Your task to perform on an android device: move a message to another label in the gmail app Image 0: 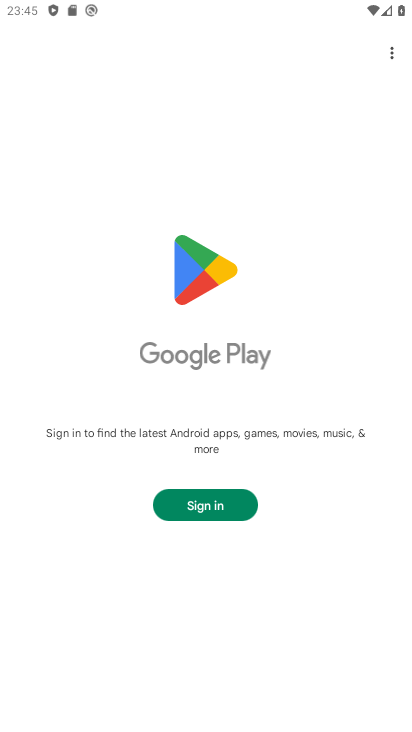
Step 0: press home button
Your task to perform on an android device: move a message to another label in the gmail app Image 1: 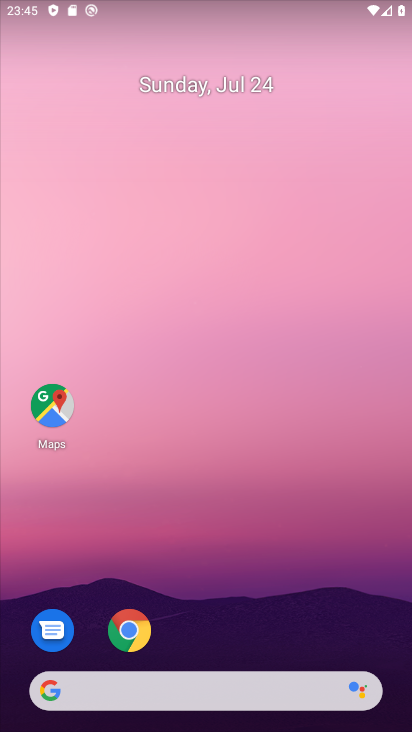
Step 1: drag from (296, 572) to (313, 138)
Your task to perform on an android device: move a message to another label in the gmail app Image 2: 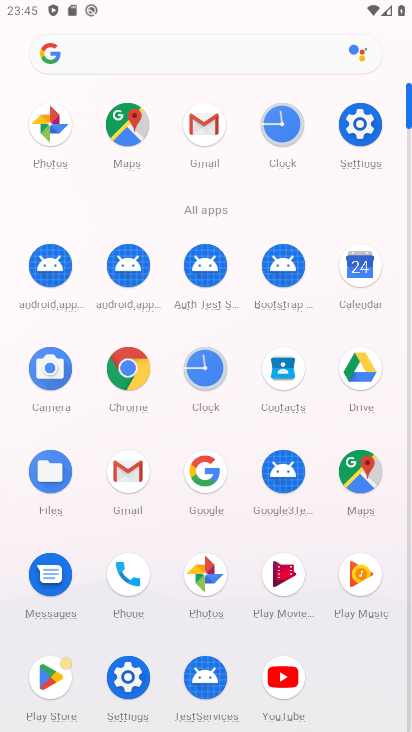
Step 2: click (205, 152)
Your task to perform on an android device: move a message to another label in the gmail app Image 3: 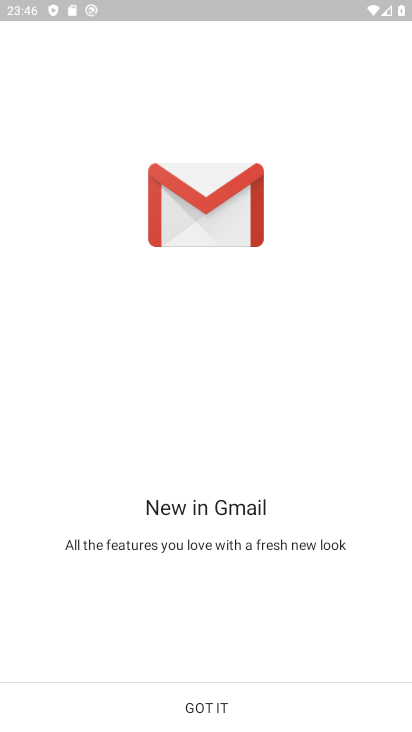
Step 3: click (219, 699)
Your task to perform on an android device: move a message to another label in the gmail app Image 4: 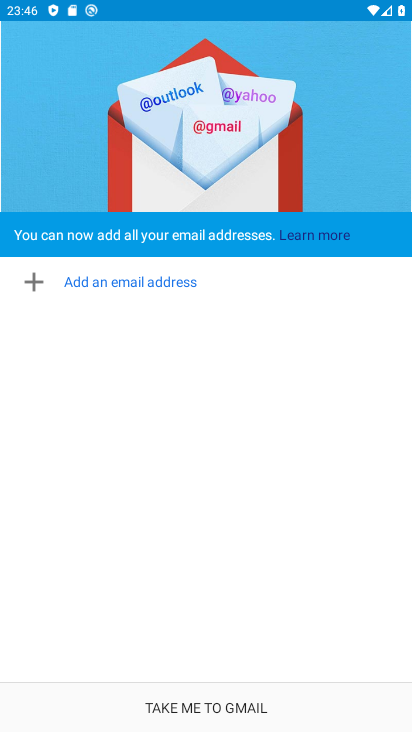
Step 4: click (215, 700)
Your task to perform on an android device: move a message to another label in the gmail app Image 5: 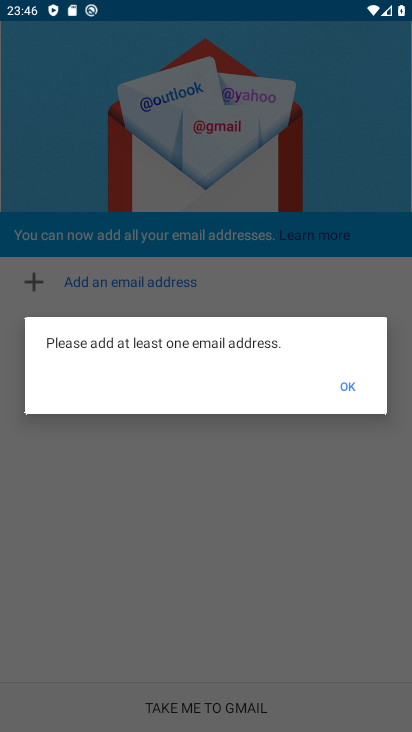
Step 5: click (355, 384)
Your task to perform on an android device: move a message to another label in the gmail app Image 6: 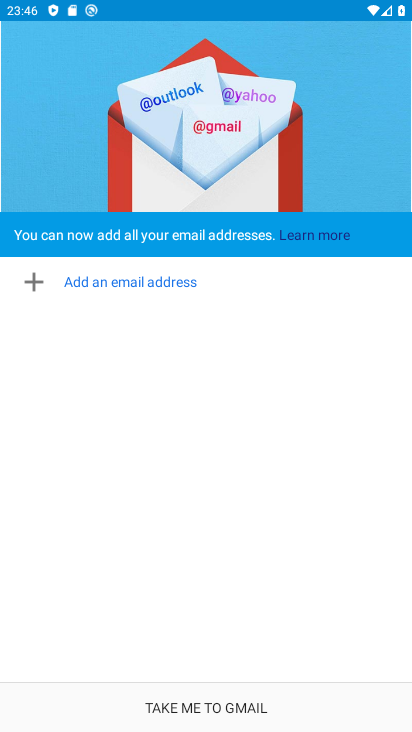
Step 6: task complete